Your task to perform on an android device: Turn on the flashlight Image 0: 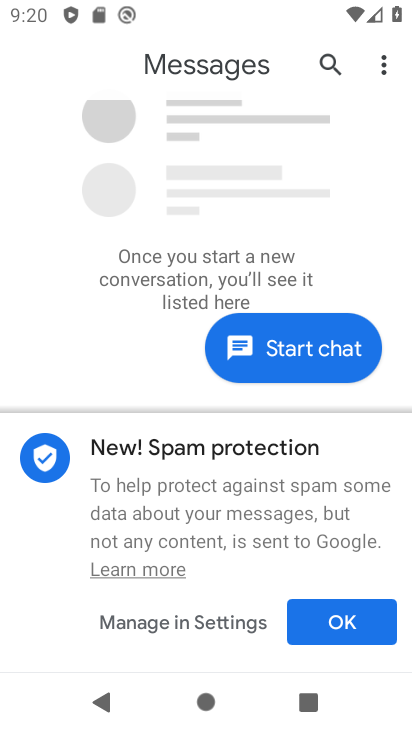
Step 0: press home button
Your task to perform on an android device: Turn on the flashlight Image 1: 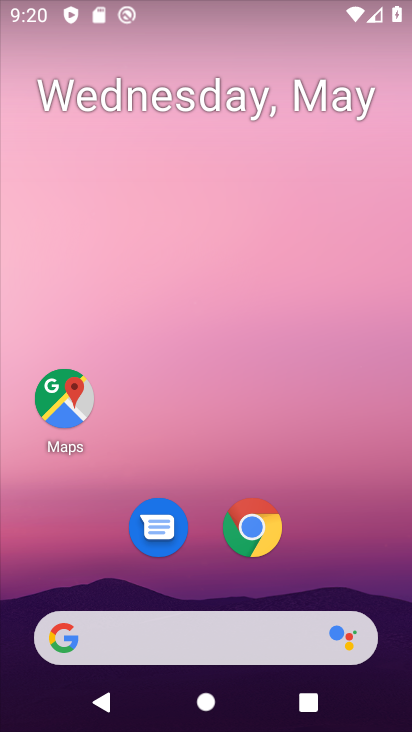
Step 1: drag from (174, 611) to (106, 53)
Your task to perform on an android device: Turn on the flashlight Image 2: 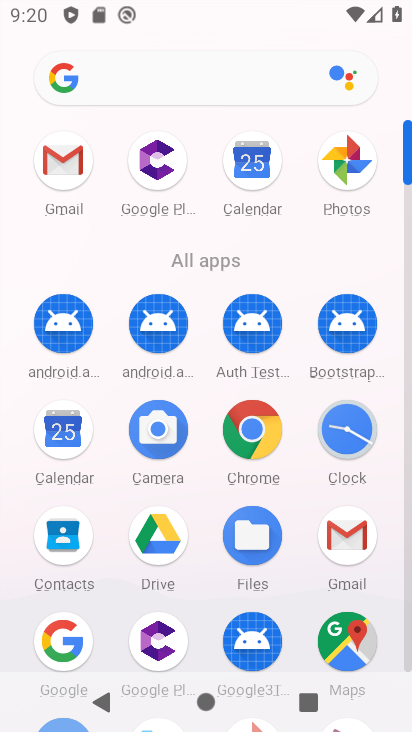
Step 2: drag from (117, 483) to (86, 151)
Your task to perform on an android device: Turn on the flashlight Image 3: 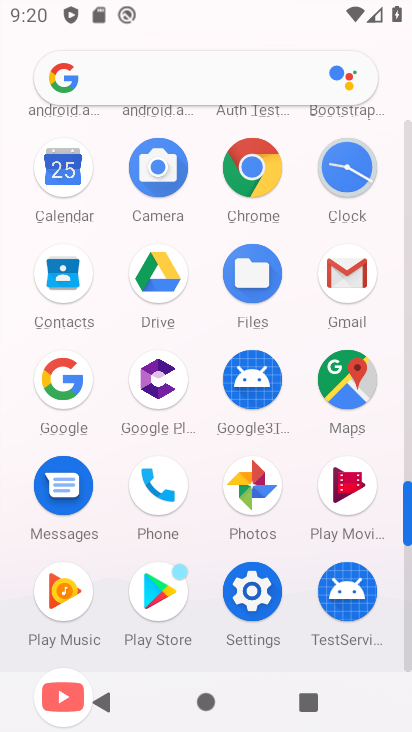
Step 3: click (254, 596)
Your task to perform on an android device: Turn on the flashlight Image 4: 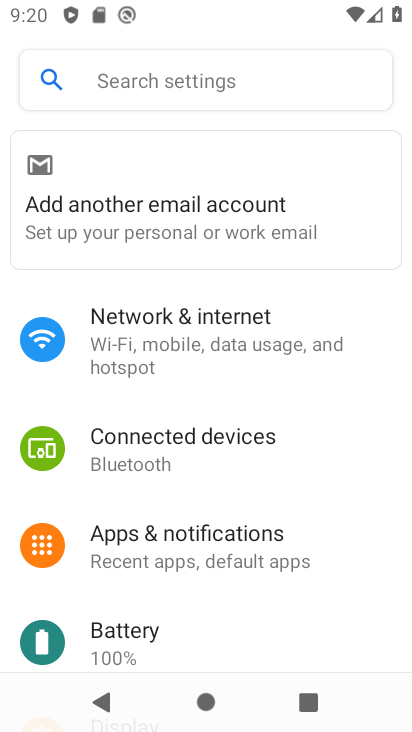
Step 4: task complete